Your task to perform on an android device: search for outdoor chairs on article.com Image 0: 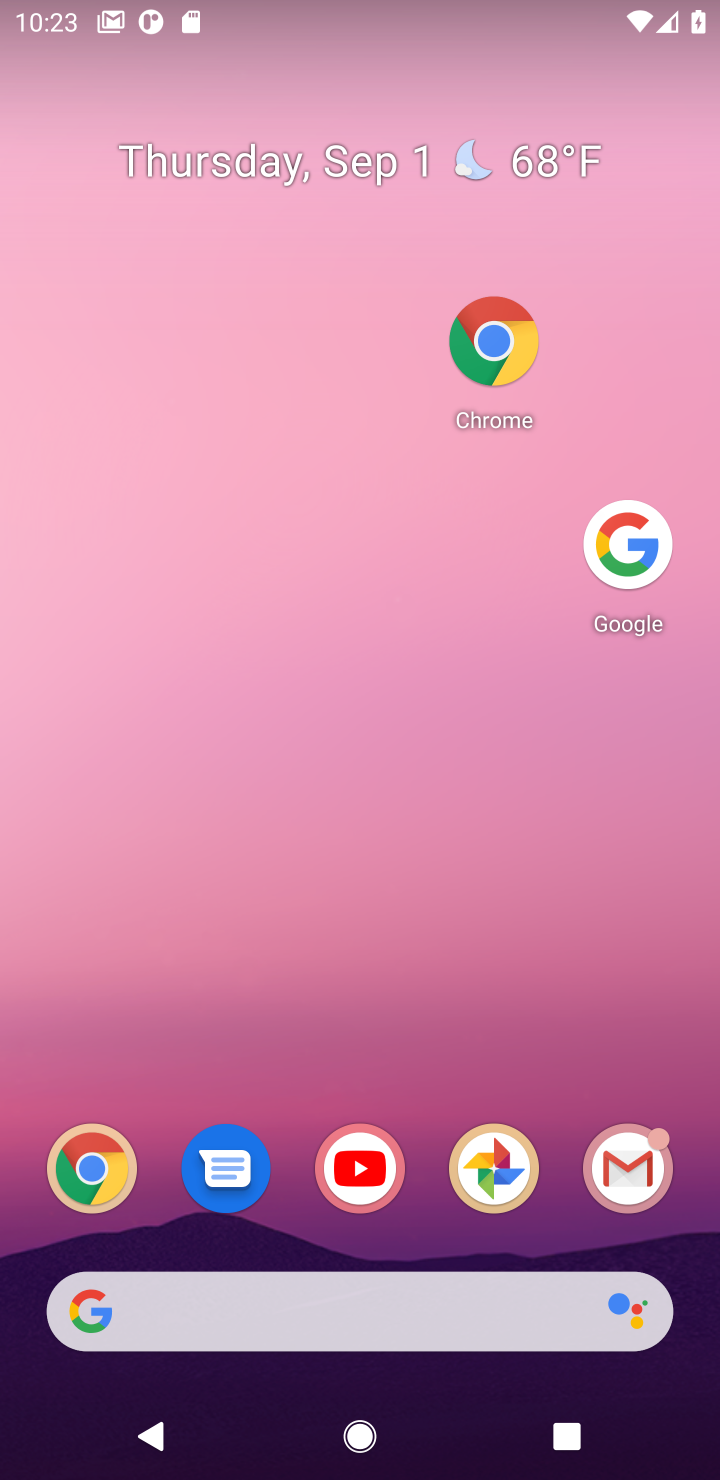
Step 0: click (298, 535)
Your task to perform on an android device: search for outdoor chairs on article.com Image 1: 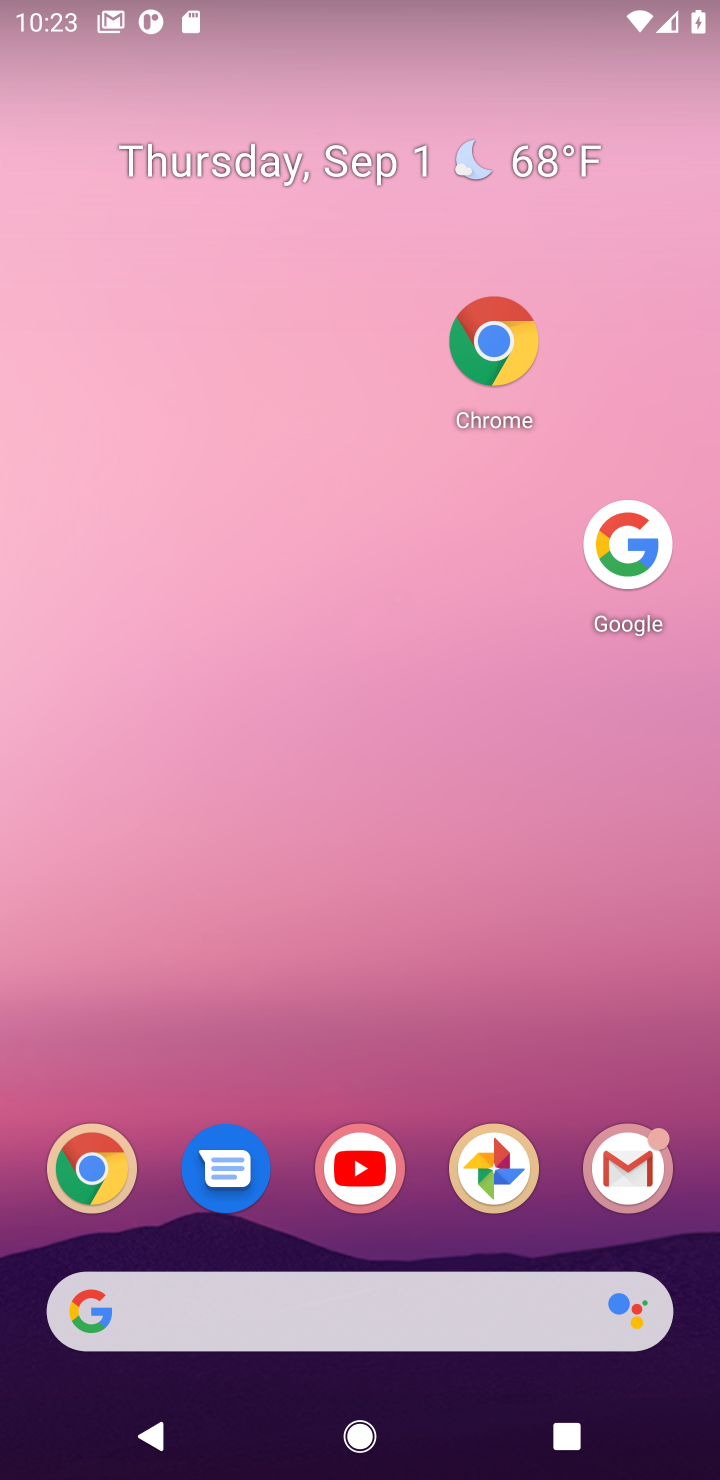
Step 1: drag from (338, 1253) to (300, 374)
Your task to perform on an android device: search for outdoor chairs on article.com Image 2: 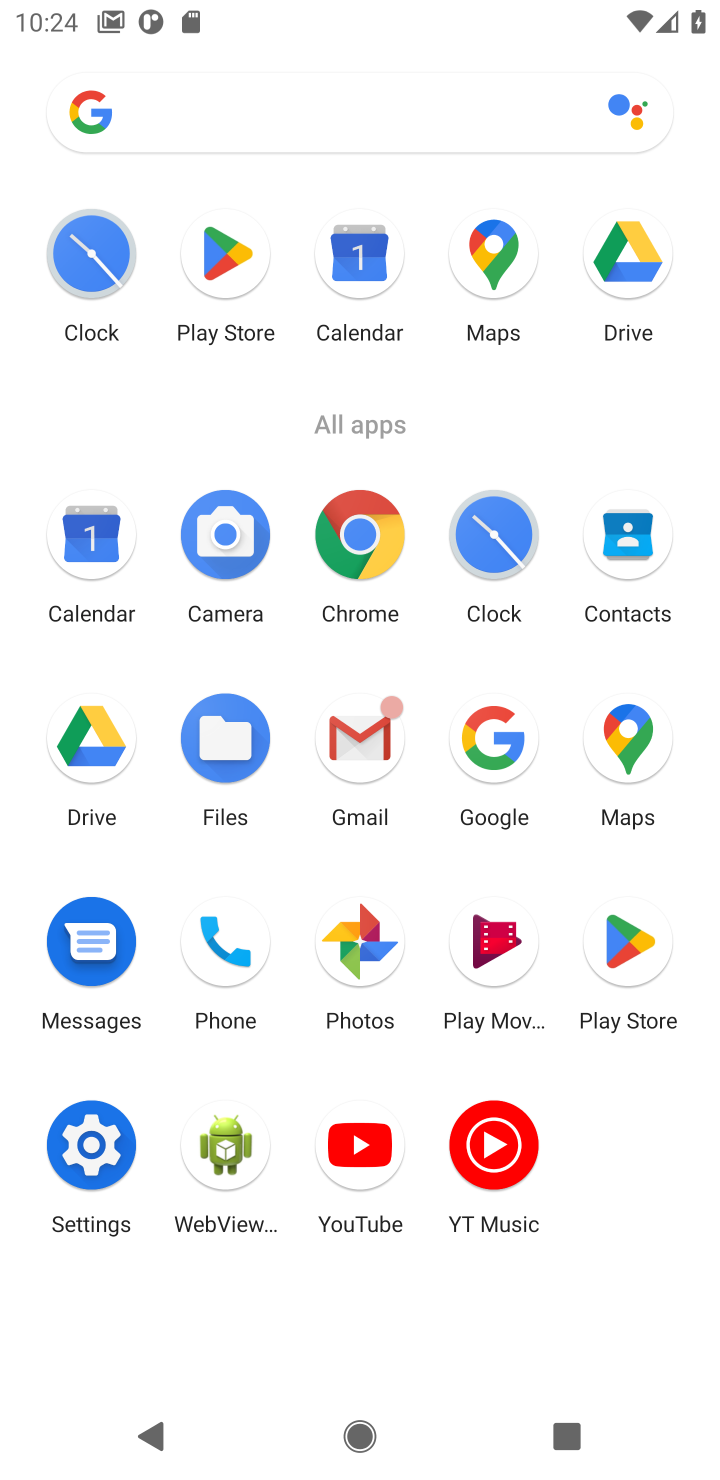
Step 2: click (494, 736)
Your task to perform on an android device: search for outdoor chairs on article.com Image 3: 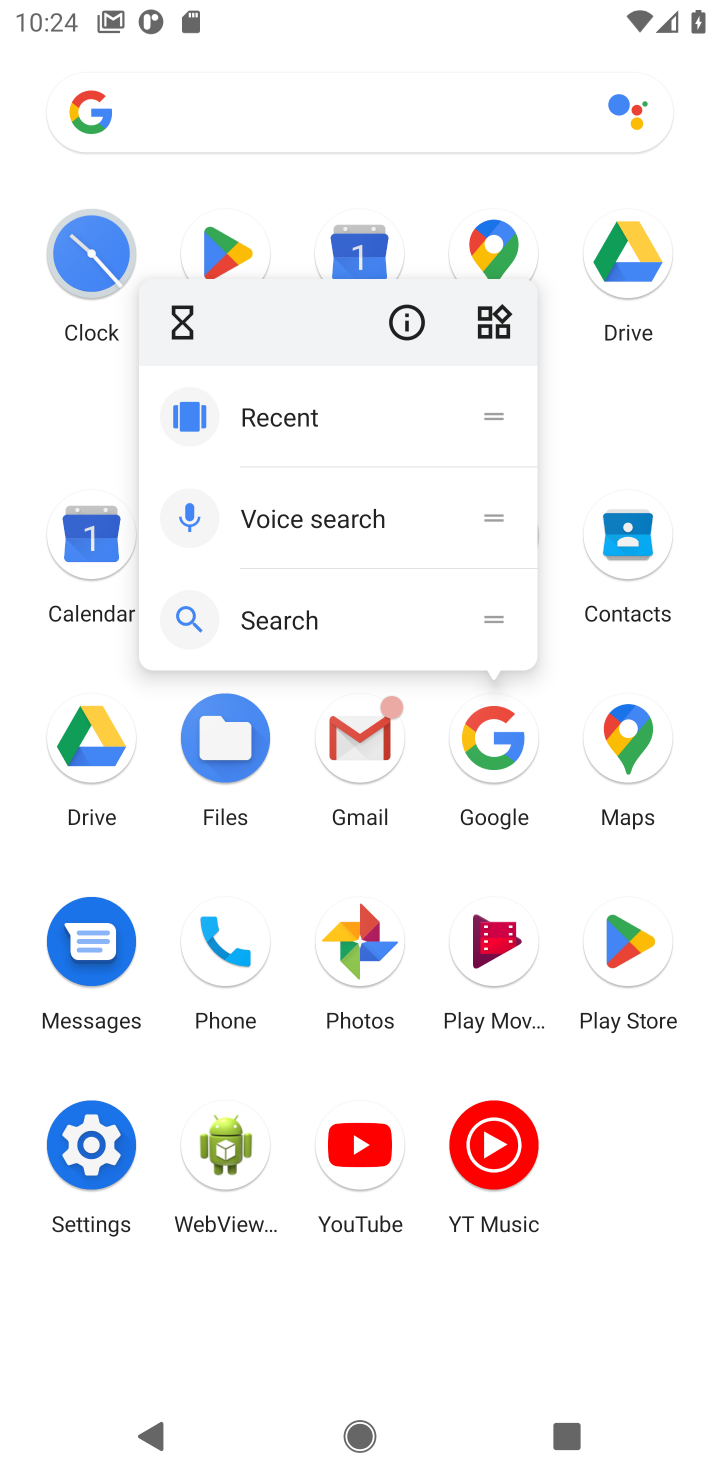
Step 3: click (487, 733)
Your task to perform on an android device: search for outdoor chairs on article.com Image 4: 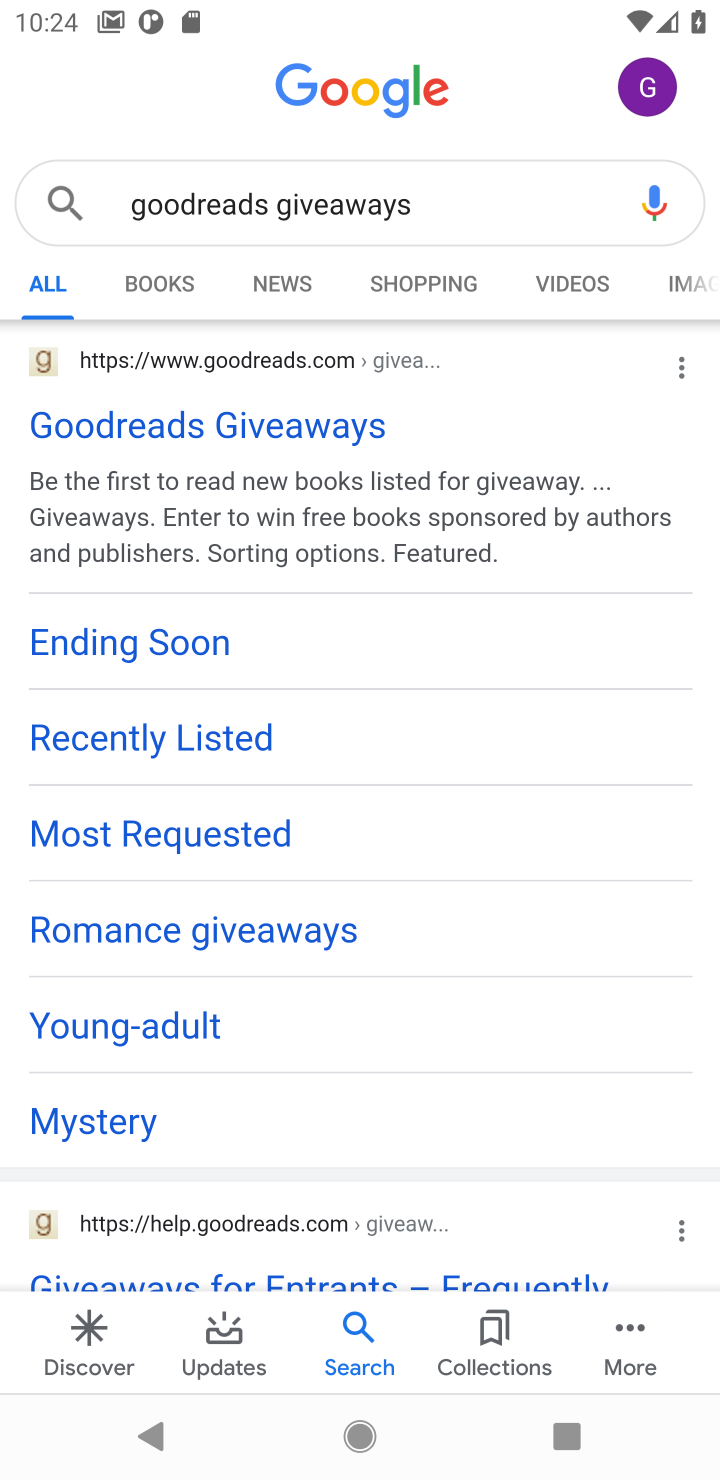
Step 4: click (464, 205)
Your task to perform on an android device: search for outdoor chairs on article.com Image 5: 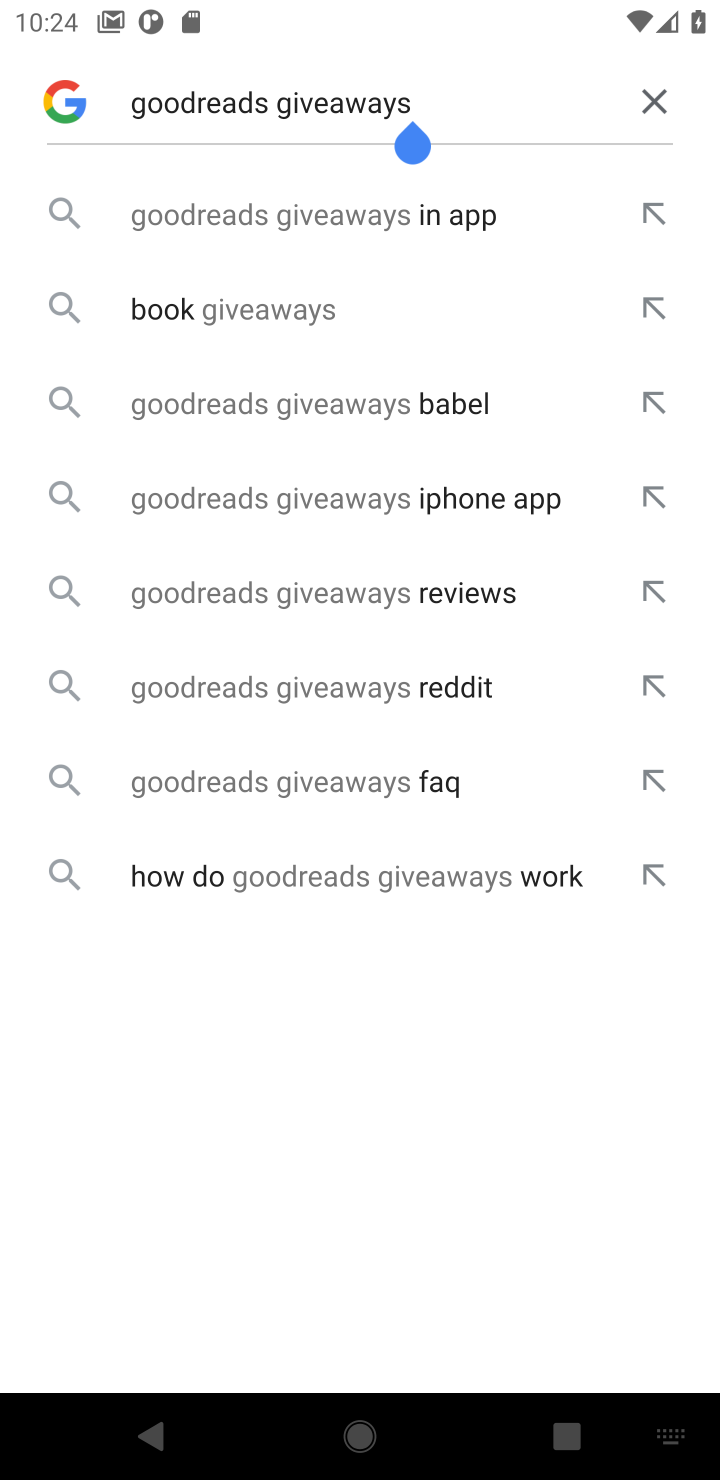
Step 5: click (646, 113)
Your task to perform on an android device: search for outdoor chairs on article.com Image 6: 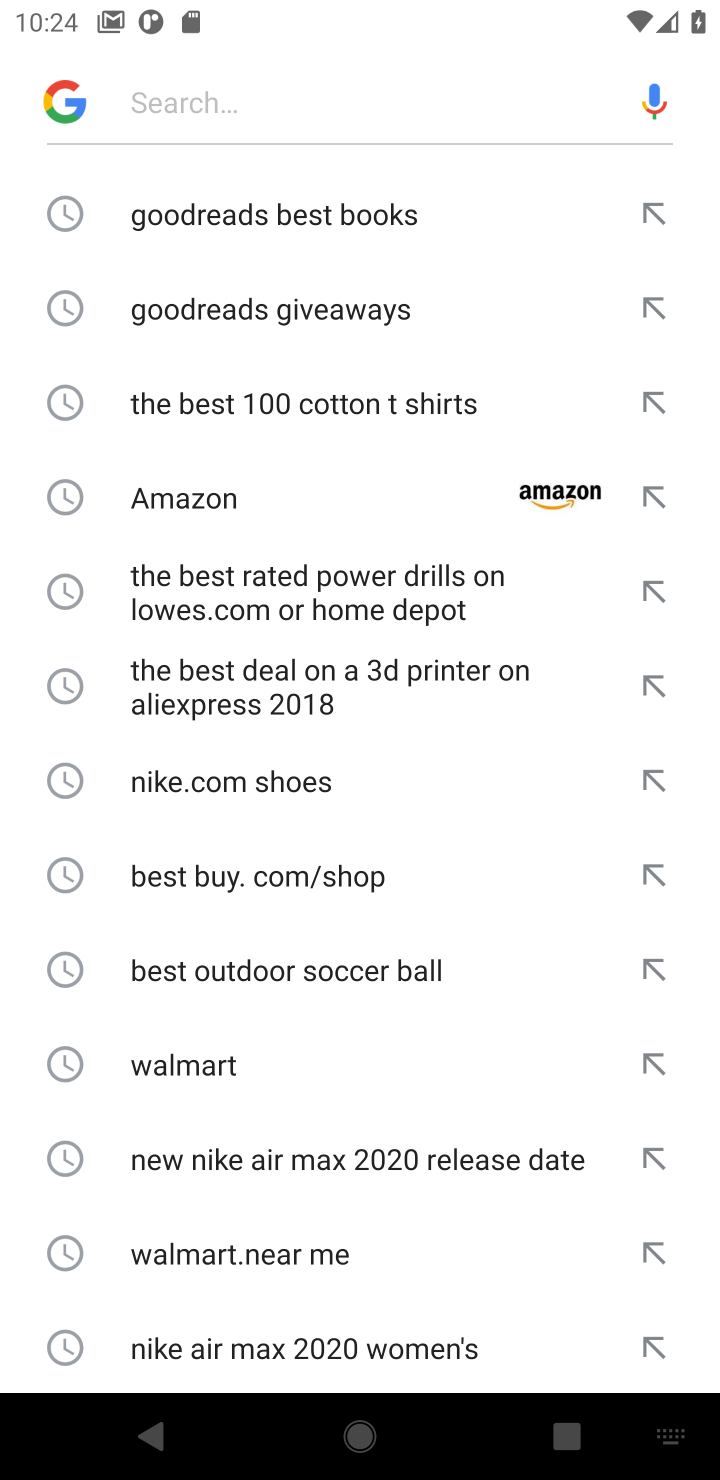
Step 6: click (322, 61)
Your task to perform on an android device: search for outdoor chairs on article.com Image 7: 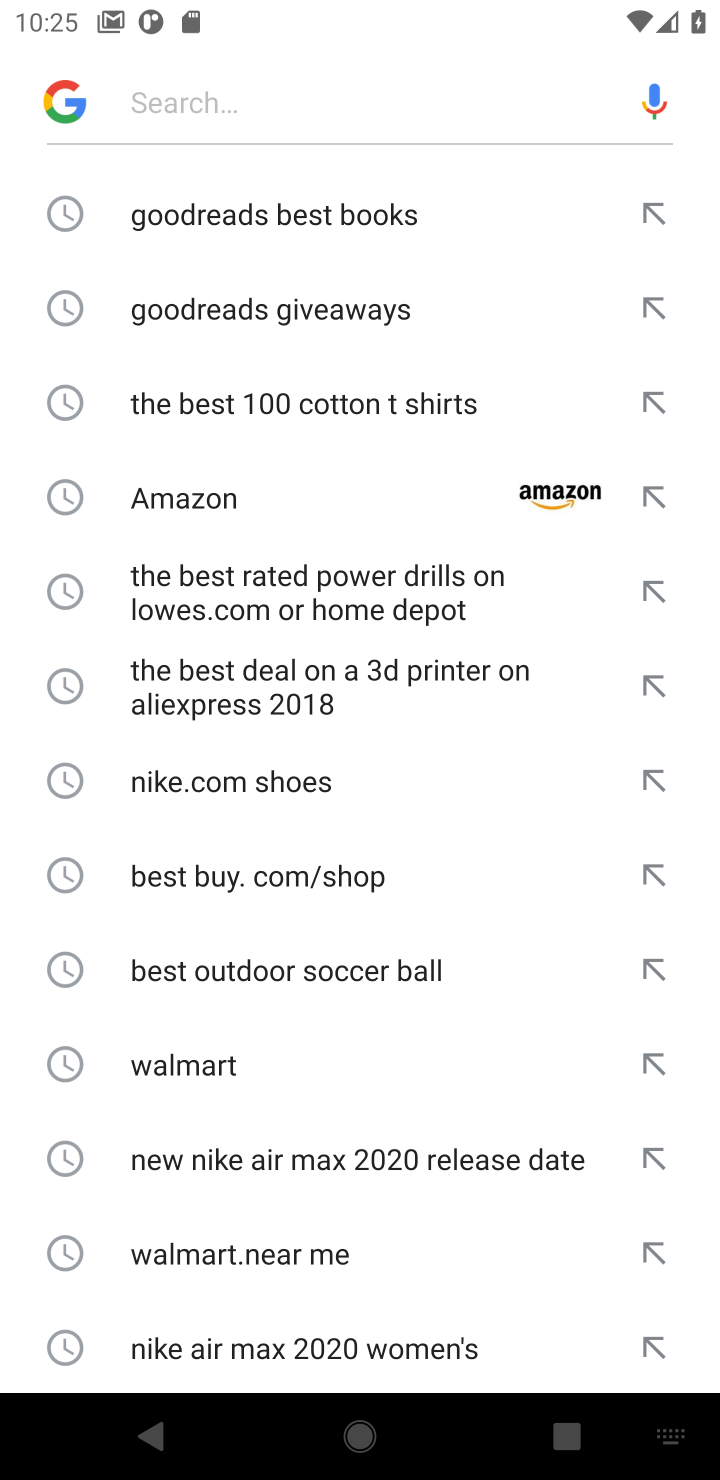
Step 7: click (308, 97)
Your task to perform on an android device: search for outdoor chairs on article.com Image 8: 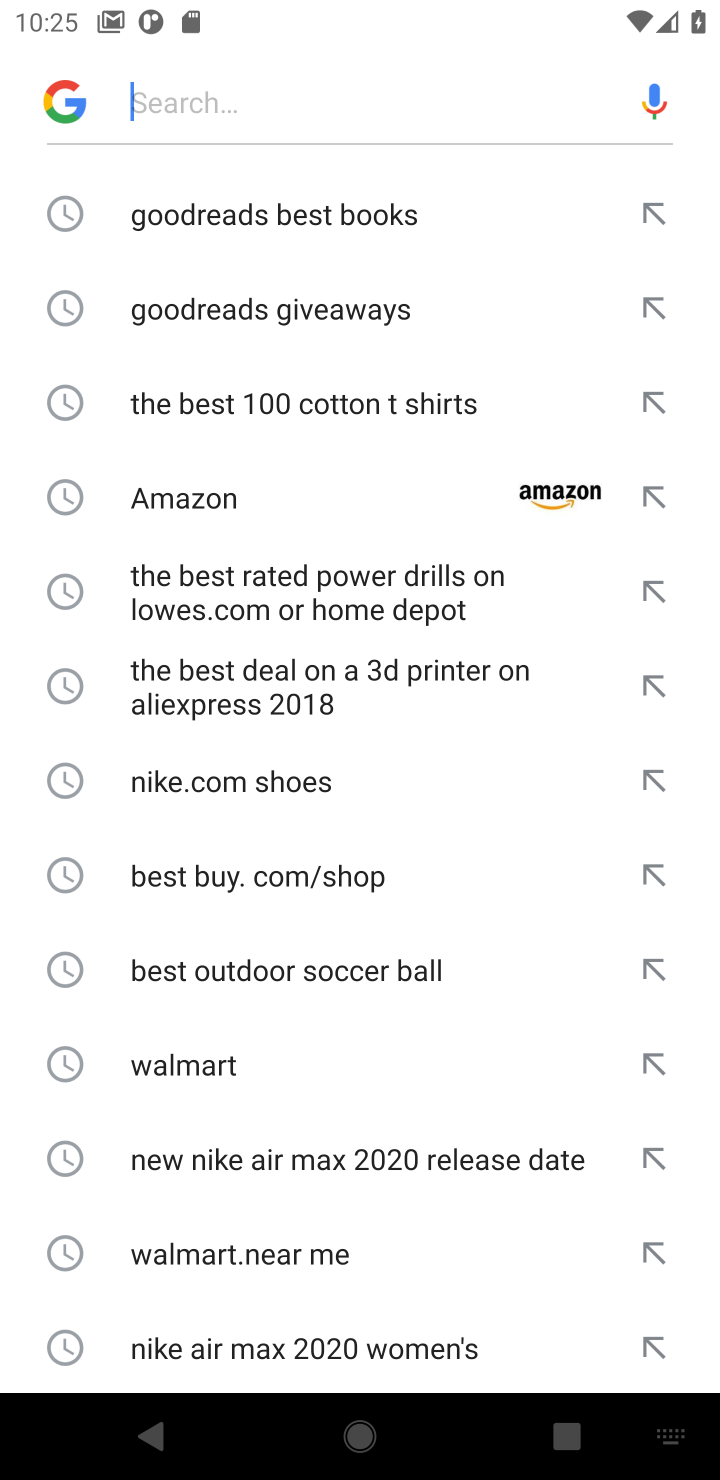
Step 8: type "article.com "
Your task to perform on an android device: search for outdoor chairs on article.com Image 9: 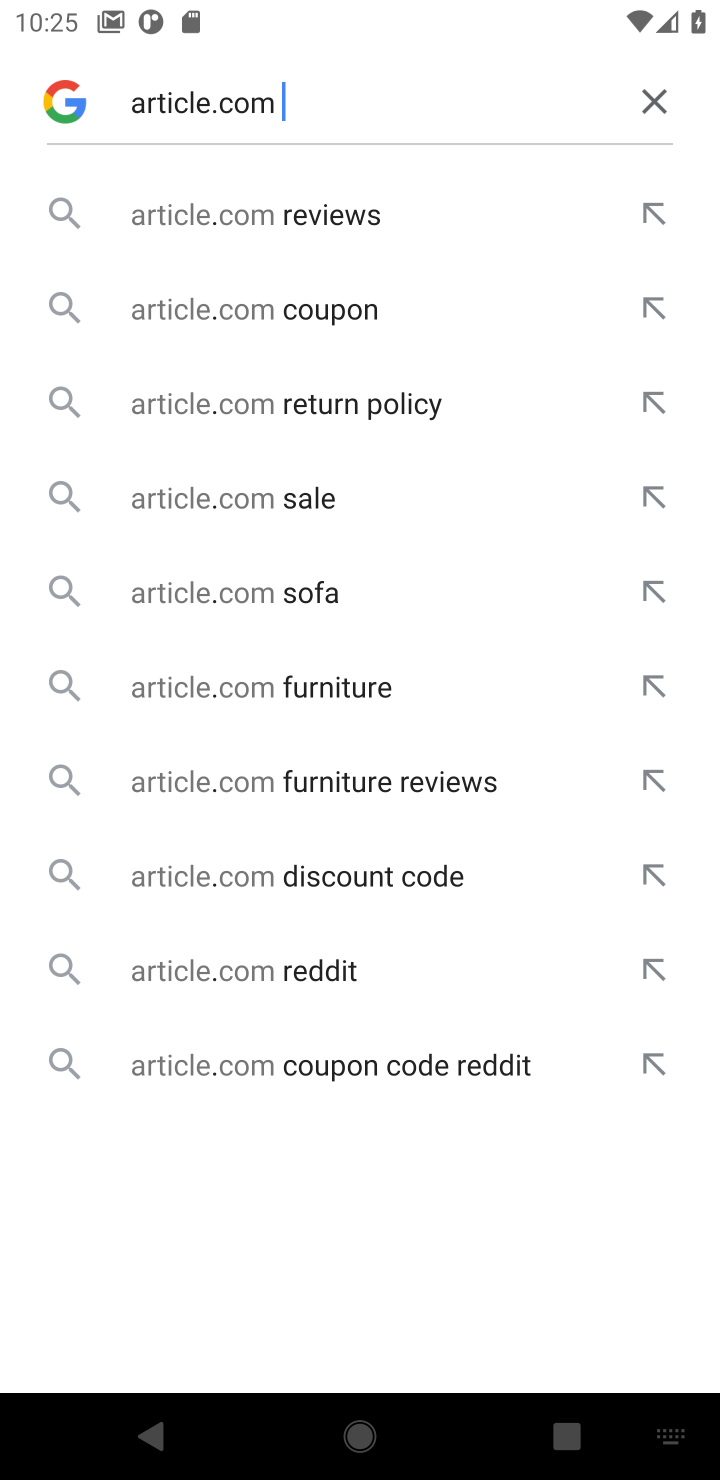
Step 9: click (216, 214)
Your task to perform on an android device: search for outdoor chairs on article.com Image 10: 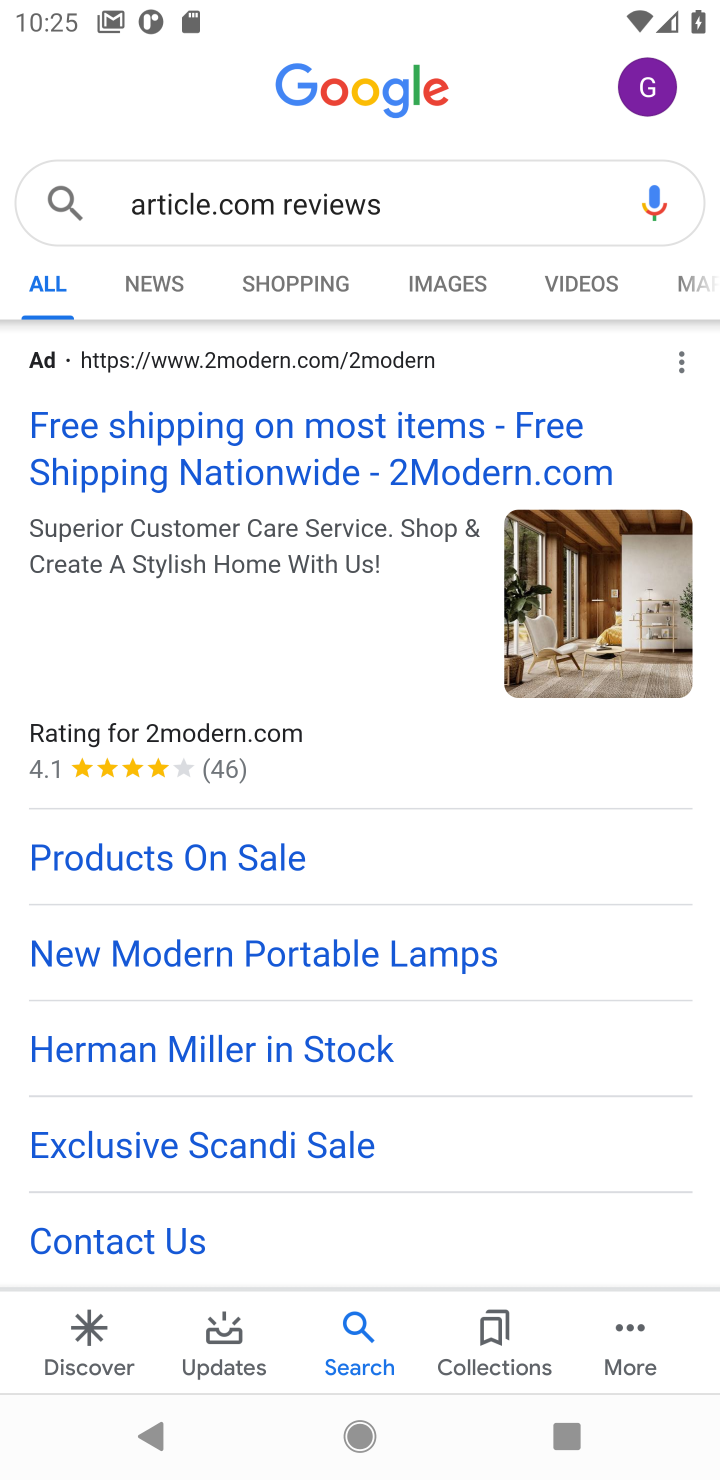
Step 10: click (261, 434)
Your task to perform on an android device: search for outdoor chairs on article.com Image 11: 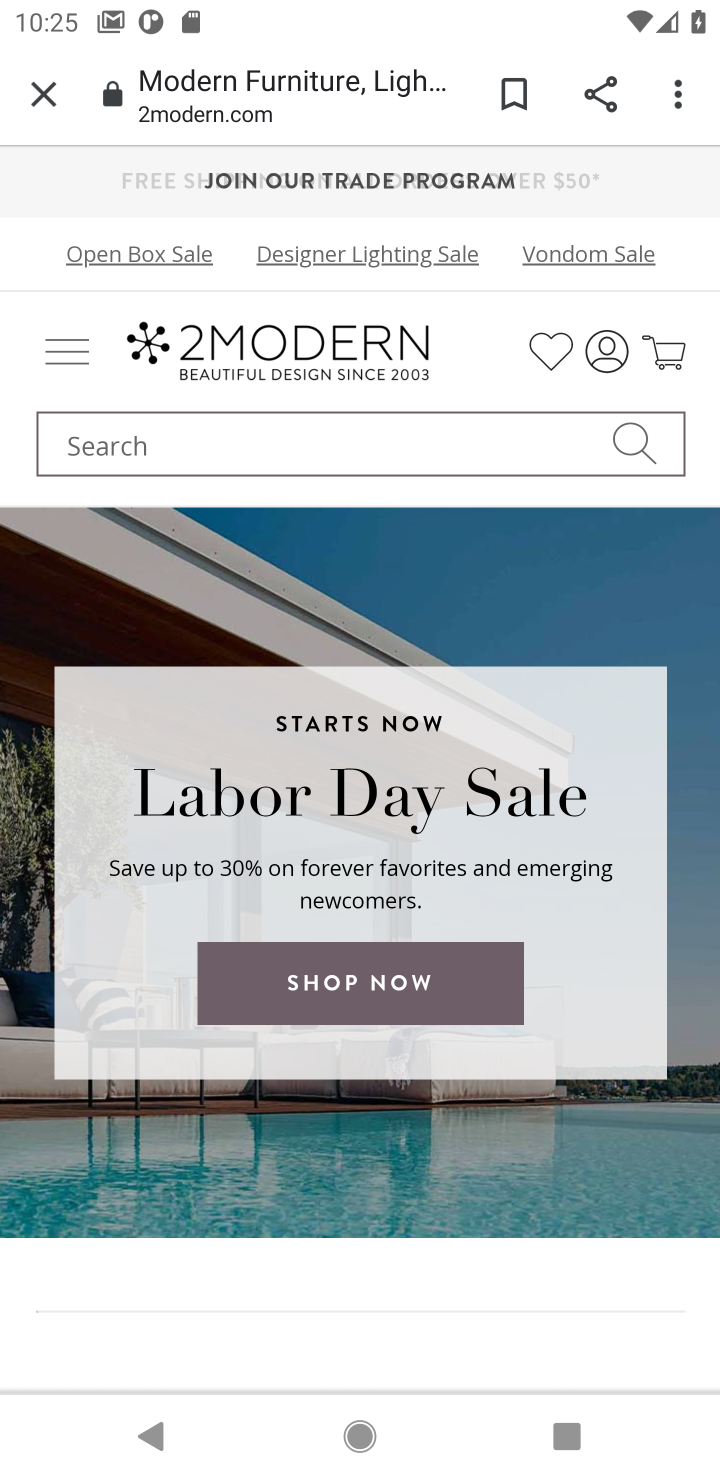
Step 11: click (365, 413)
Your task to perform on an android device: search for outdoor chairs on article.com Image 12: 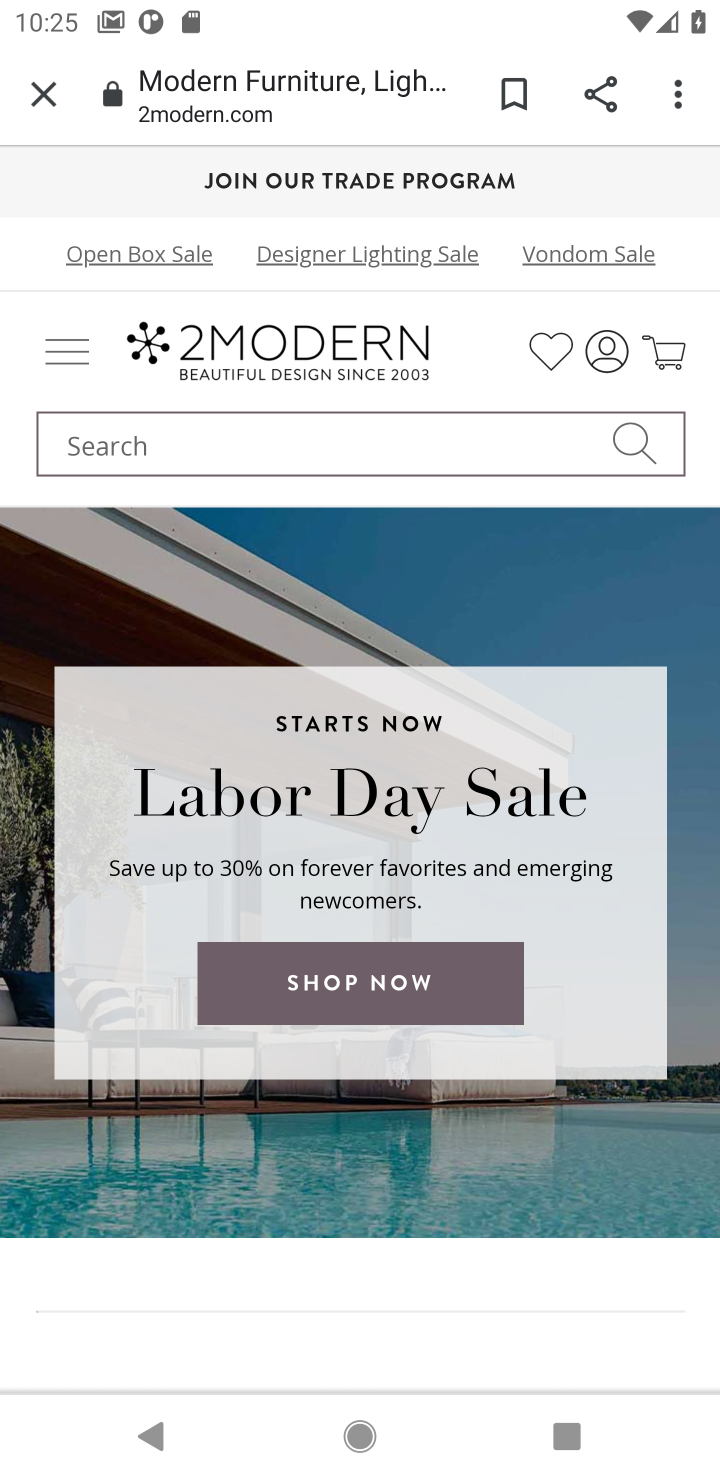
Step 12: click (430, 430)
Your task to perform on an android device: search for outdoor chairs on article.com Image 13: 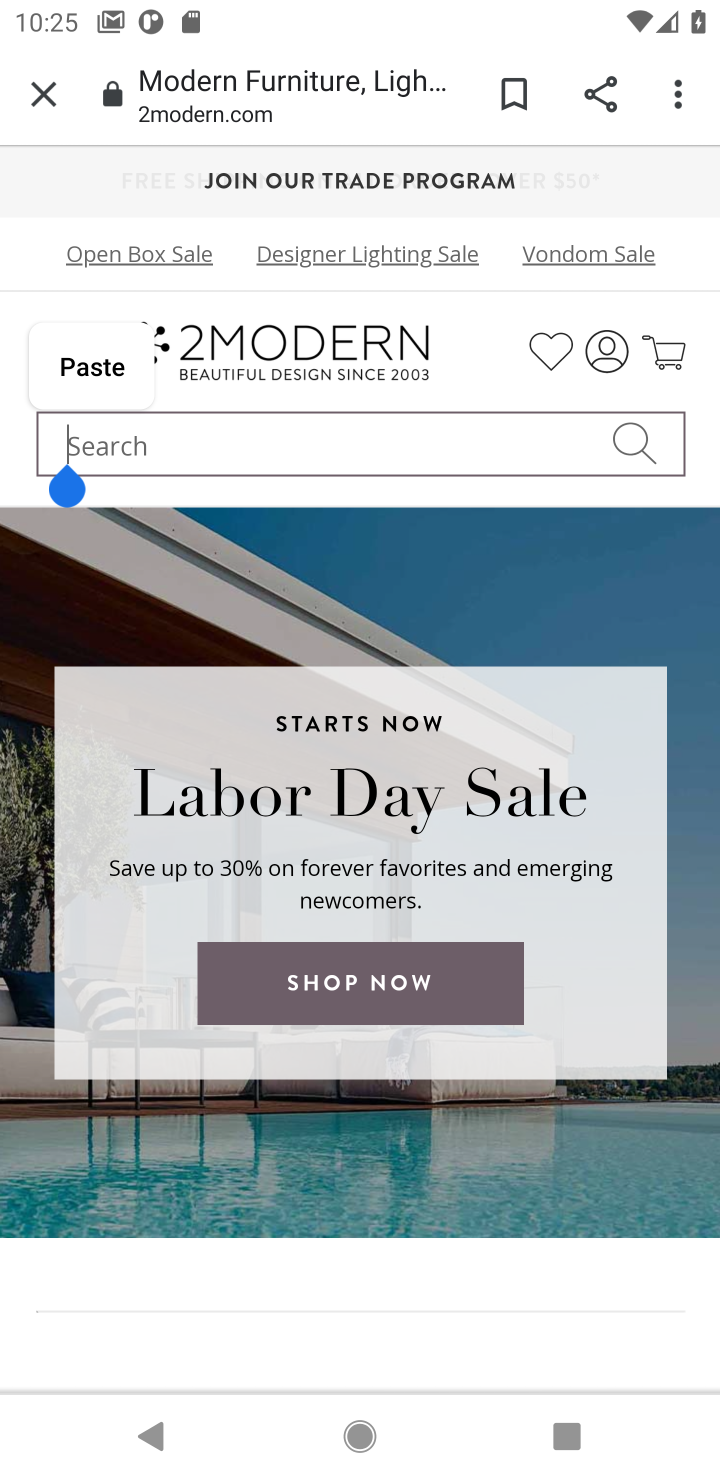
Step 13: type "outdoor chairs "
Your task to perform on an android device: search for outdoor chairs on article.com Image 14: 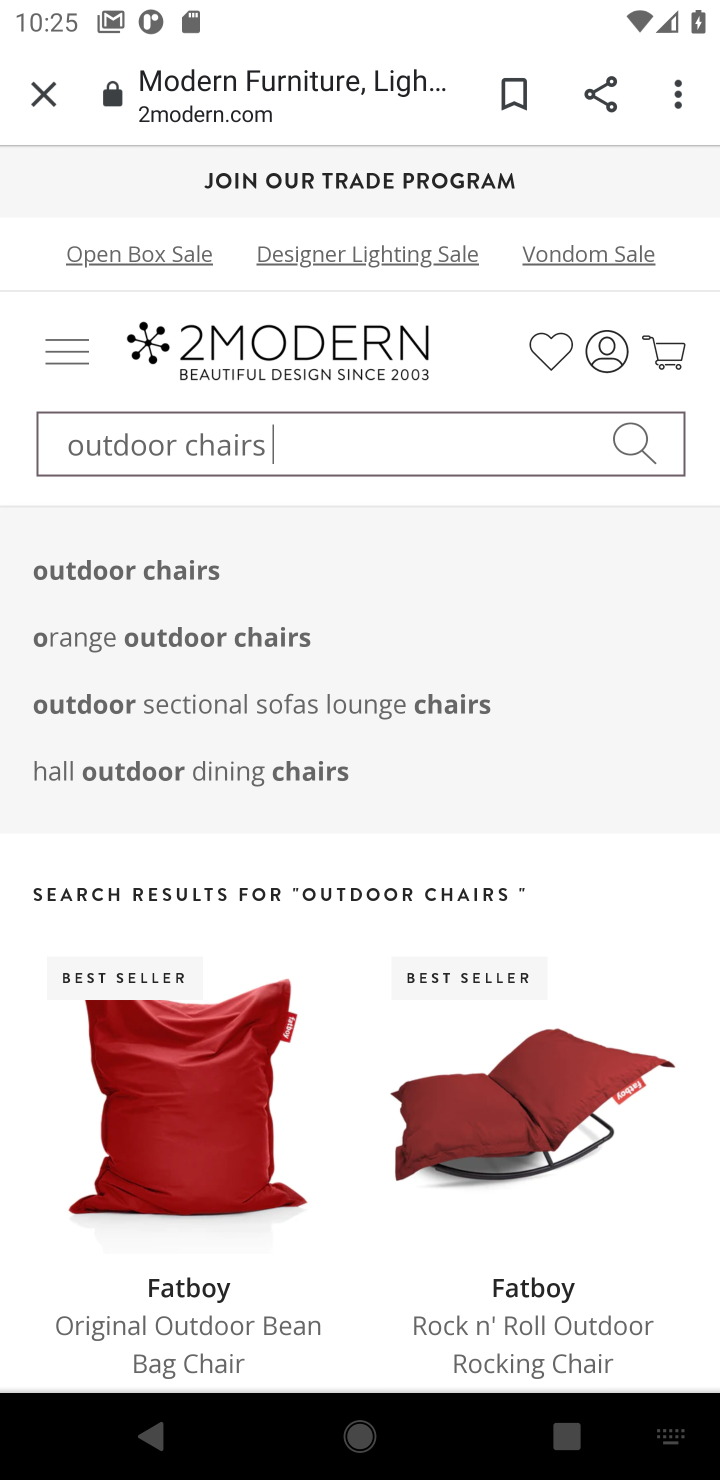
Step 14: click (157, 564)
Your task to perform on an android device: search for outdoor chairs on article.com Image 15: 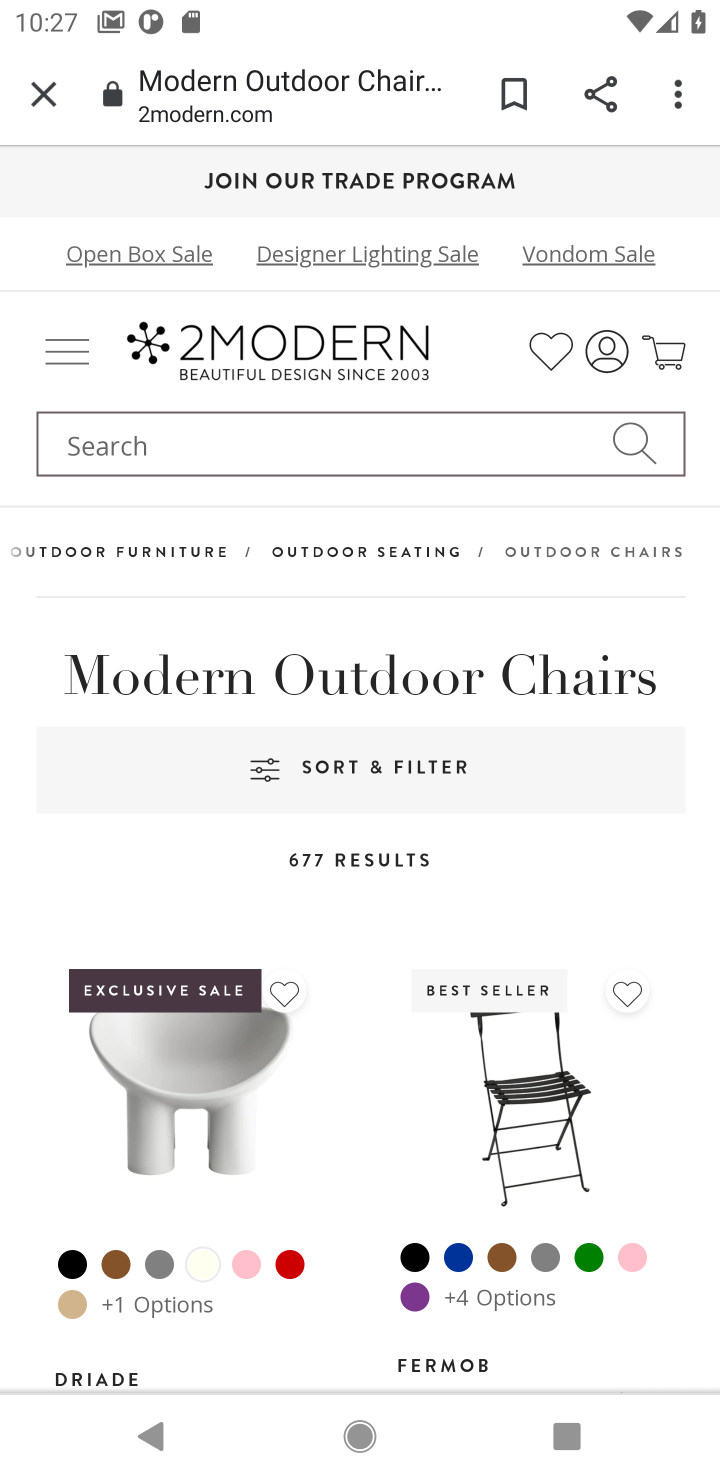
Step 15: task complete